Your task to perform on an android device: snooze an email in the gmail app Image 0: 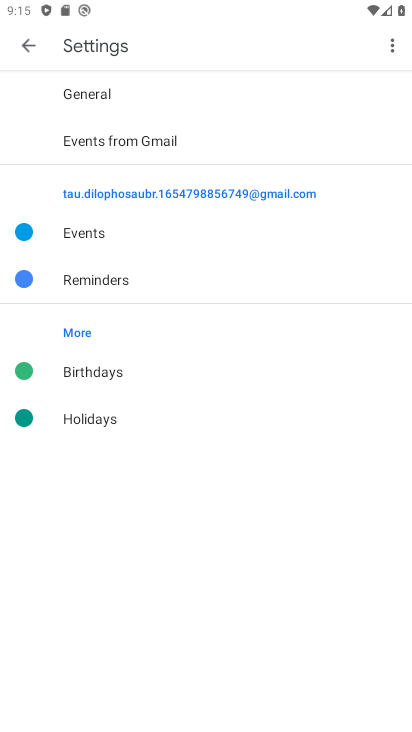
Step 0: press home button
Your task to perform on an android device: snooze an email in the gmail app Image 1: 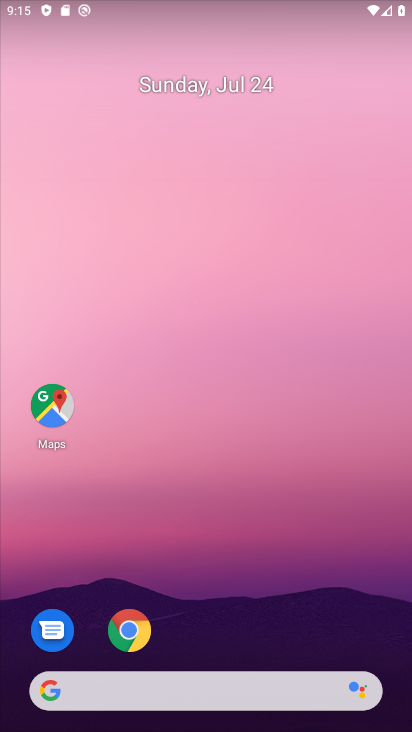
Step 1: drag from (252, 626) to (302, 94)
Your task to perform on an android device: snooze an email in the gmail app Image 2: 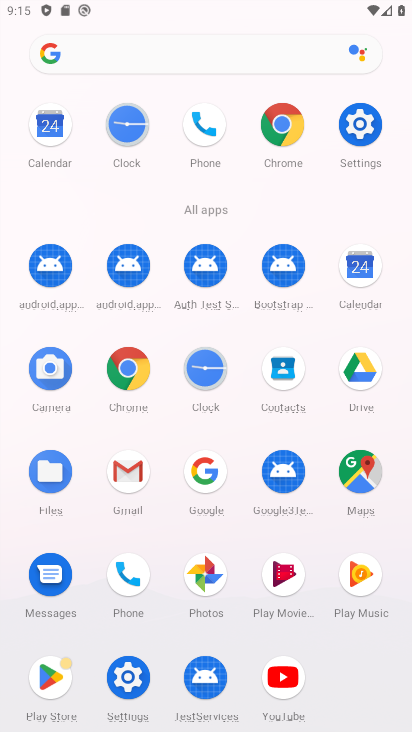
Step 2: click (125, 477)
Your task to perform on an android device: snooze an email in the gmail app Image 3: 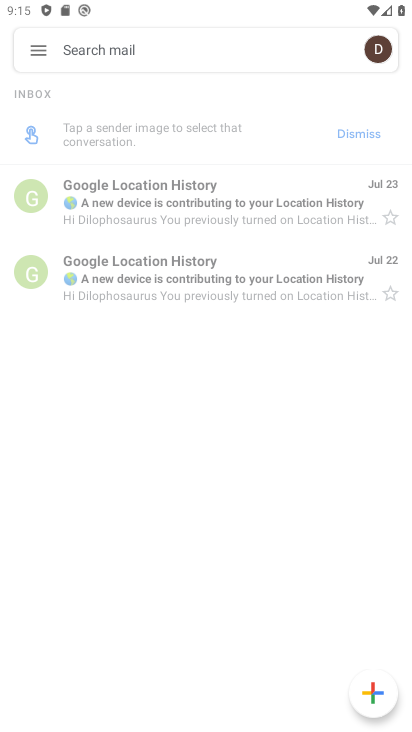
Step 3: click (44, 45)
Your task to perform on an android device: snooze an email in the gmail app Image 4: 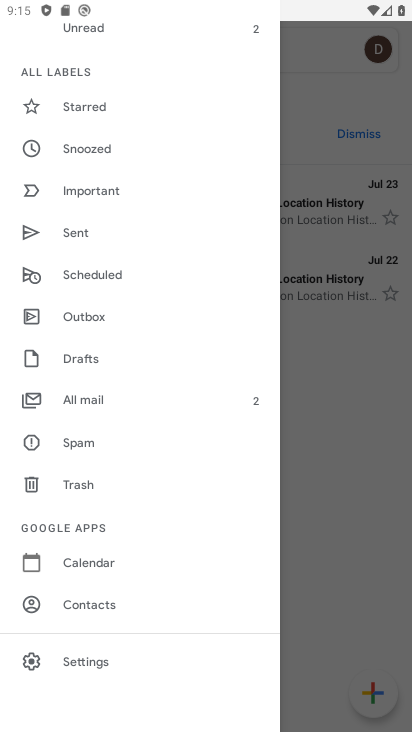
Step 4: click (83, 146)
Your task to perform on an android device: snooze an email in the gmail app Image 5: 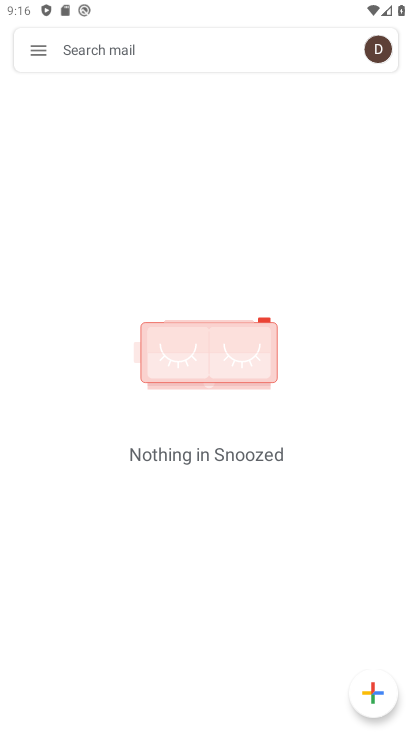
Step 5: task complete